Your task to perform on an android device: set an alarm Image 0: 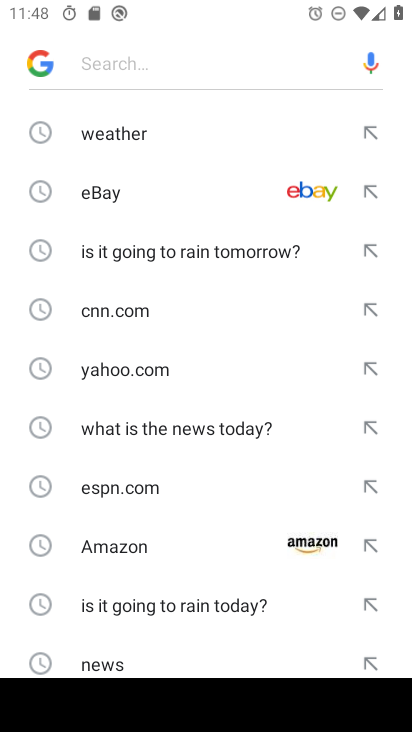
Step 0: press home button
Your task to perform on an android device: set an alarm Image 1: 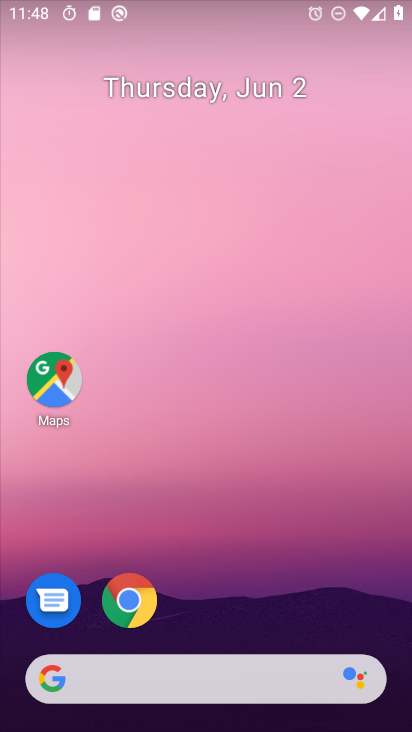
Step 1: drag from (238, 616) to (199, 66)
Your task to perform on an android device: set an alarm Image 2: 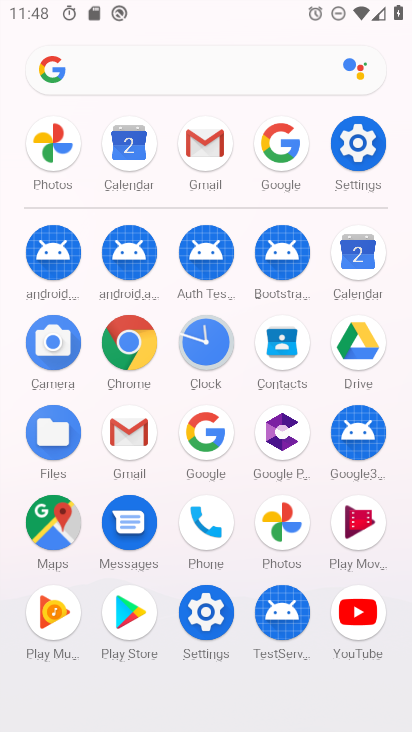
Step 2: click (206, 328)
Your task to perform on an android device: set an alarm Image 3: 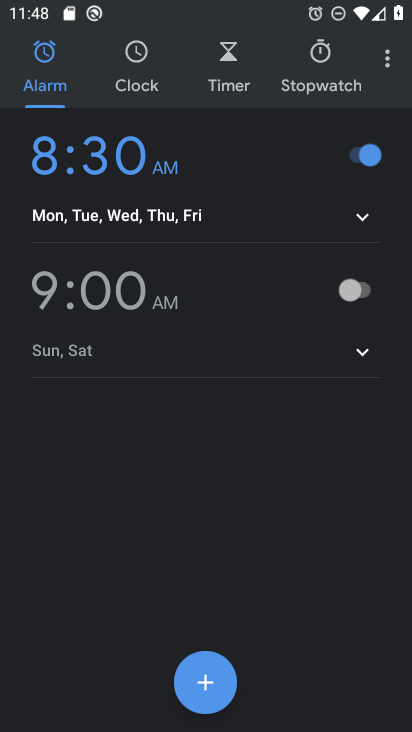
Step 3: click (349, 287)
Your task to perform on an android device: set an alarm Image 4: 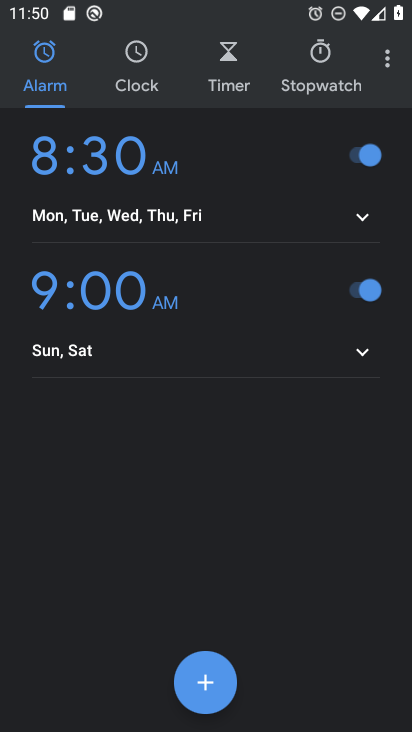
Step 4: task complete